Your task to perform on an android device: Open eBay Image 0: 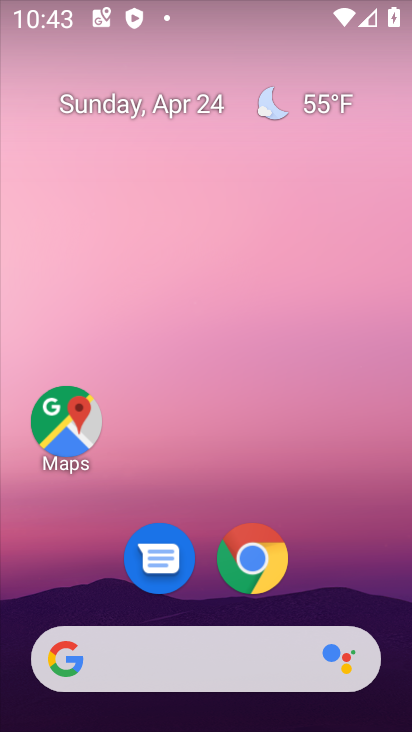
Step 0: drag from (301, 698) to (321, 99)
Your task to perform on an android device: Open eBay Image 1: 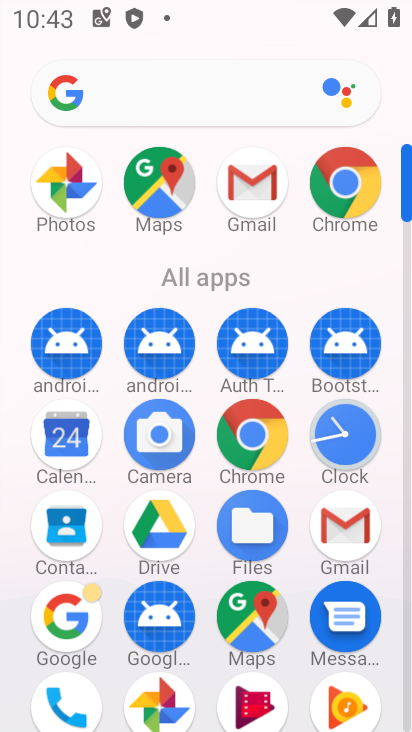
Step 1: click (350, 171)
Your task to perform on an android device: Open eBay Image 2: 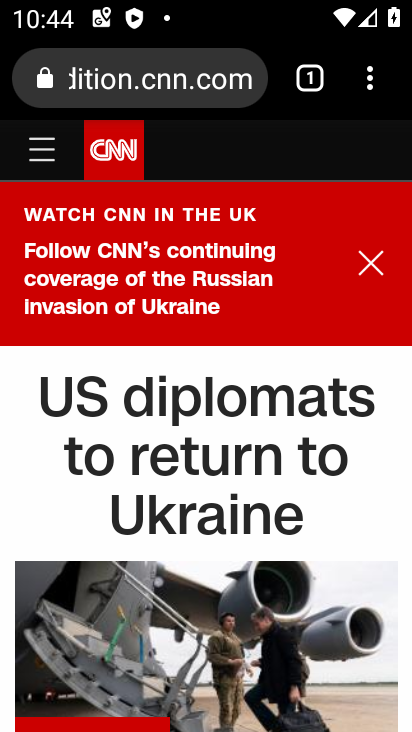
Step 2: drag from (371, 83) to (87, 163)
Your task to perform on an android device: Open eBay Image 3: 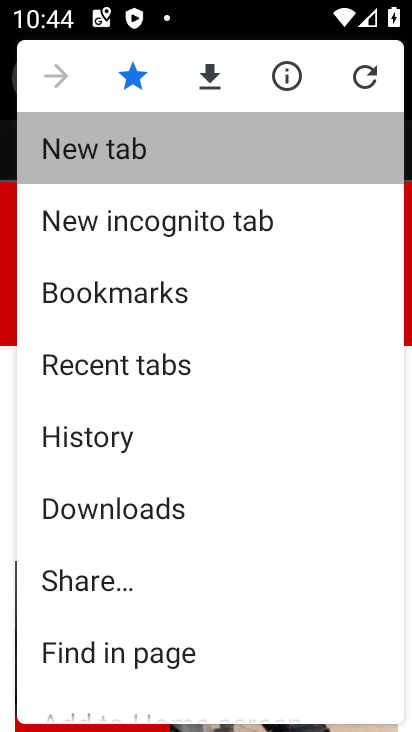
Step 3: click (88, 160)
Your task to perform on an android device: Open eBay Image 4: 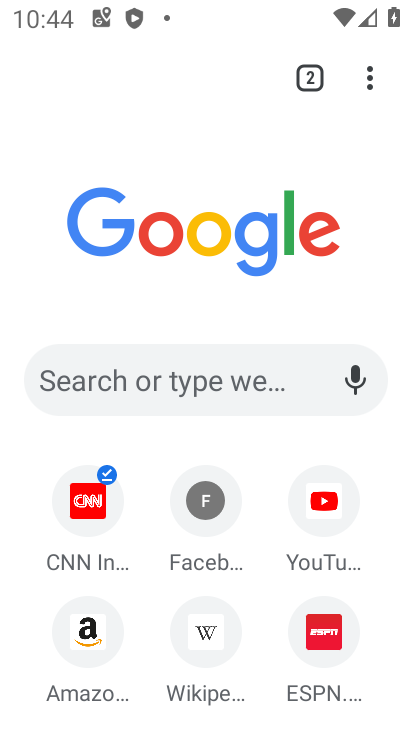
Step 4: click (90, 381)
Your task to perform on an android device: Open eBay Image 5: 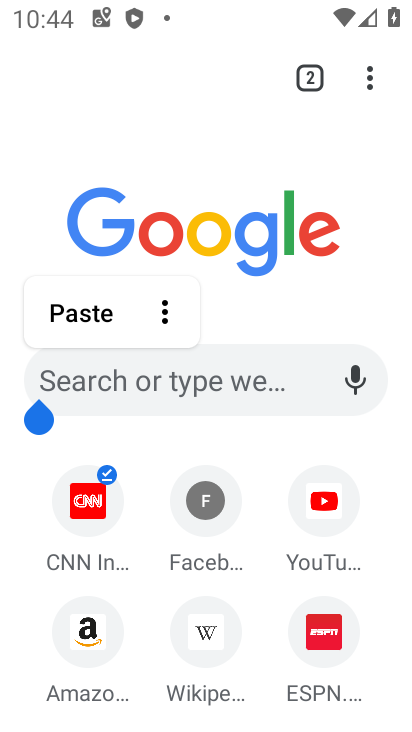
Step 5: click (72, 365)
Your task to perform on an android device: Open eBay Image 6: 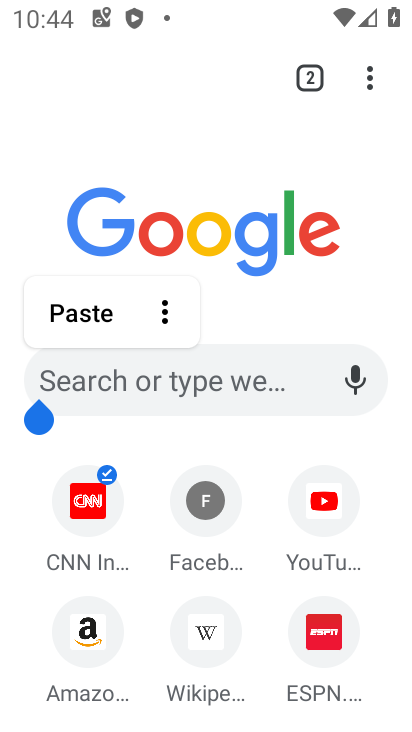
Step 6: drag from (246, 649) to (247, 196)
Your task to perform on an android device: Open eBay Image 7: 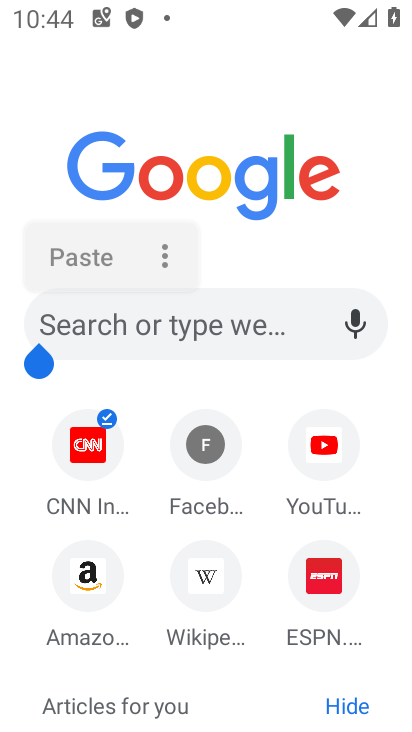
Step 7: click (247, 196)
Your task to perform on an android device: Open eBay Image 8: 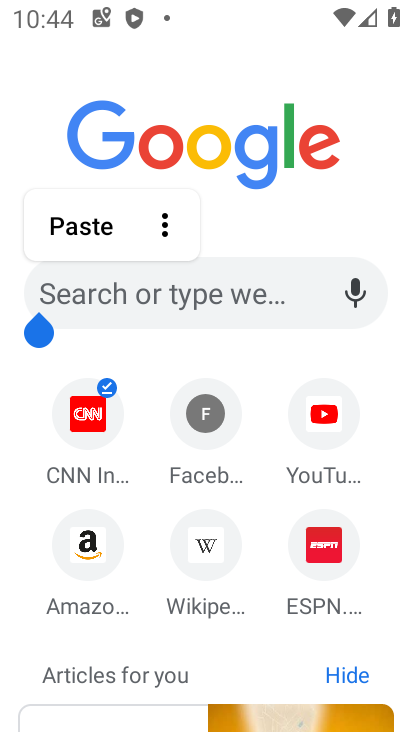
Step 8: click (77, 287)
Your task to perform on an android device: Open eBay Image 9: 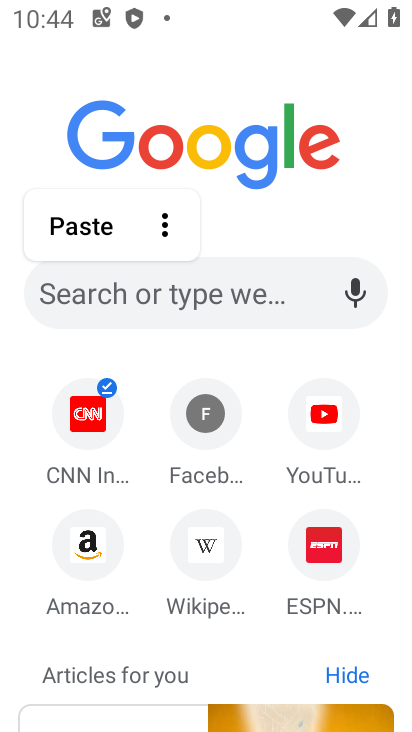
Step 9: click (77, 288)
Your task to perform on an android device: Open eBay Image 10: 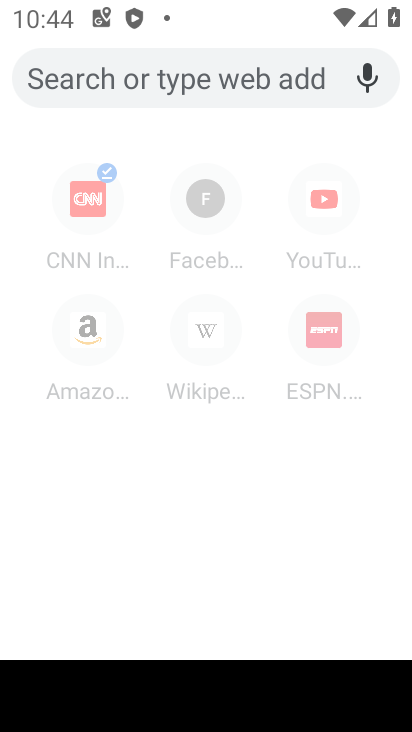
Step 10: click (75, 289)
Your task to perform on an android device: Open eBay Image 11: 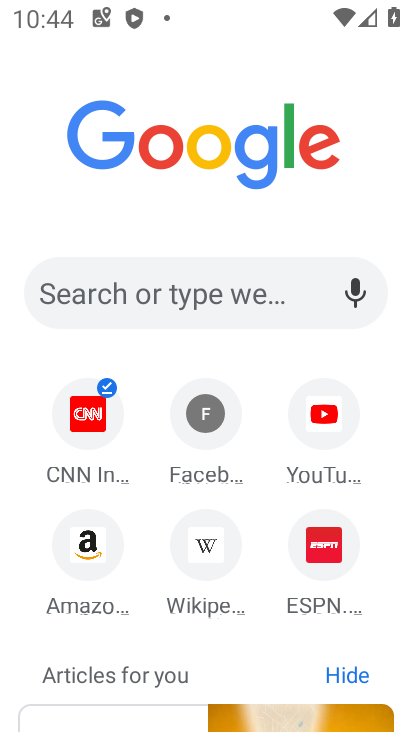
Step 11: click (80, 281)
Your task to perform on an android device: Open eBay Image 12: 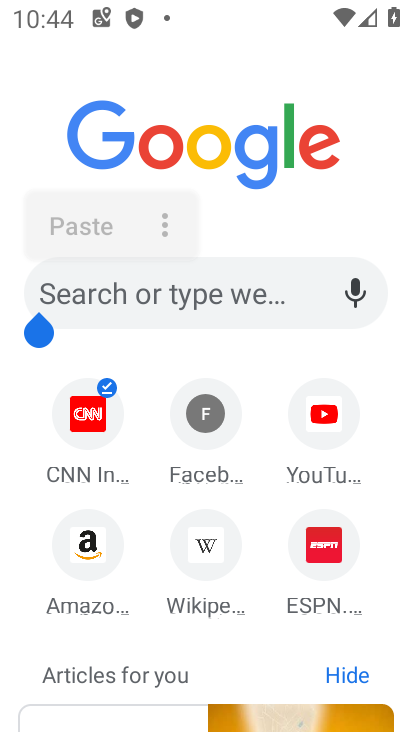
Step 12: click (73, 288)
Your task to perform on an android device: Open eBay Image 13: 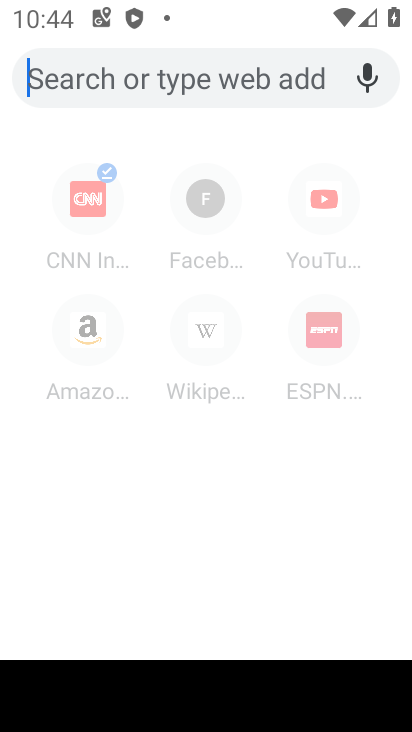
Step 13: type "www. ebay. com"
Your task to perform on an android device: Open eBay Image 14: 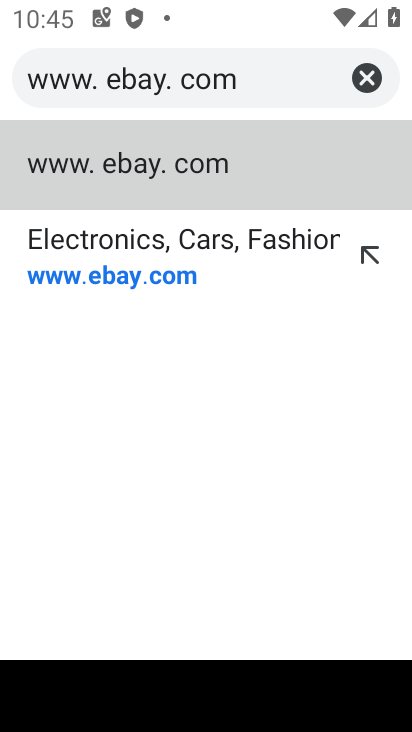
Step 14: click (148, 276)
Your task to perform on an android device: Open eBay Image 15: 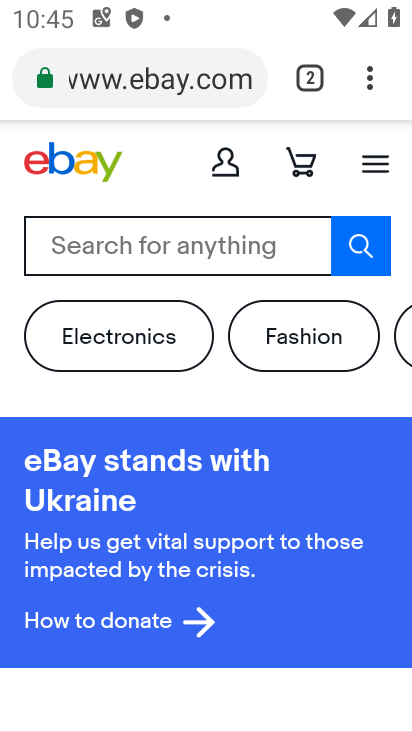
Step 15: task complete